Your task to perform on an android device: Clear all items from cart on target. Search for "lenovo thinkpad" on target, select the first entry, add it to the cart, then select checkout. Image 0: 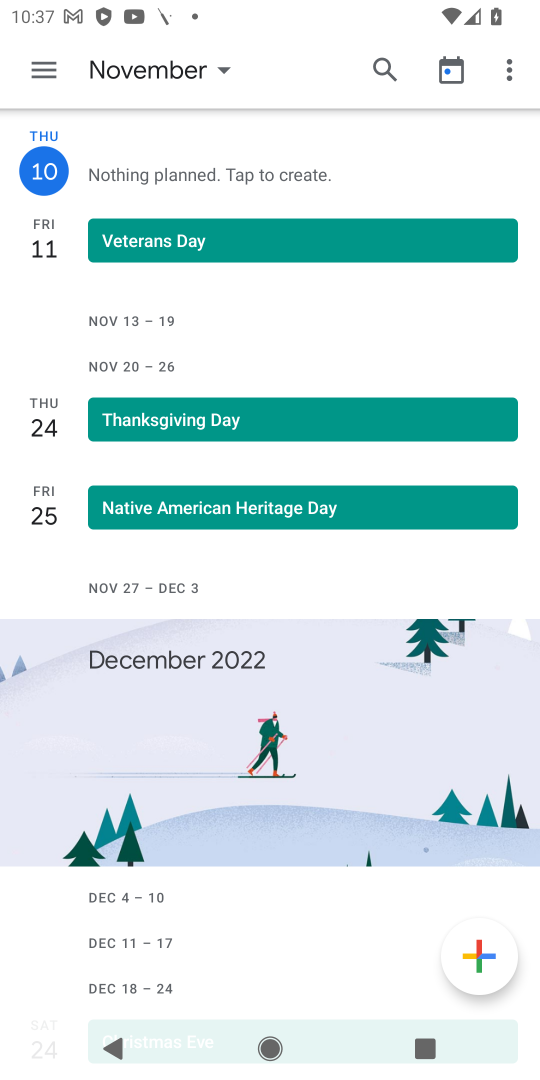
Step 0: press home button
Your task to perform on an android device: Clear all items from cart on target. Search for "lenovo thinkpad" on target, select the first entry, add it to the cart, then select checkout. Image 1: 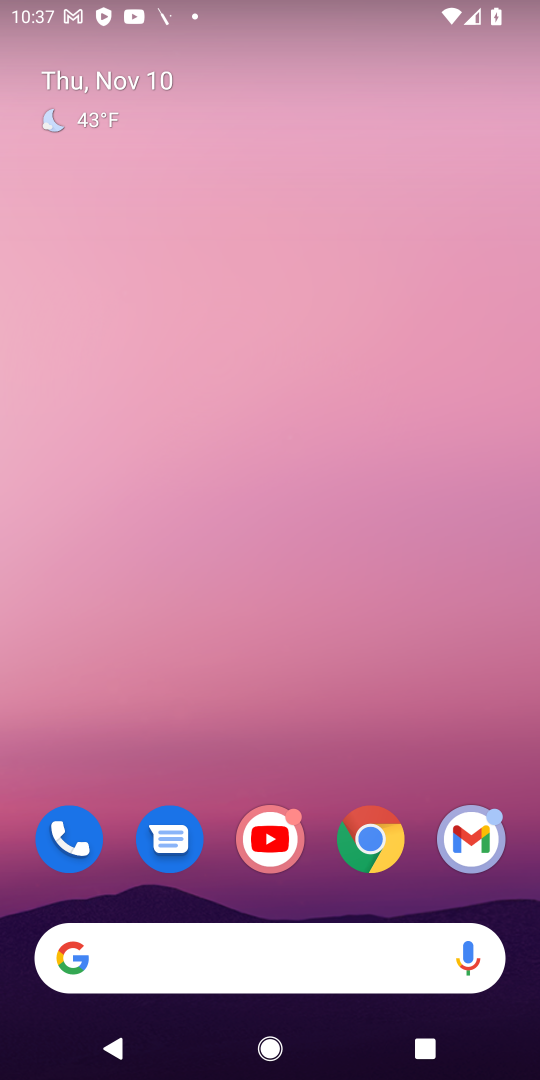
Step 1: click (381, 839)
Your task to perform on an android device: Clear all items from cart on target. Search for "lenovo thinkpad" on target, select the first entry, add it to the cart, then select checkout. Image 2: 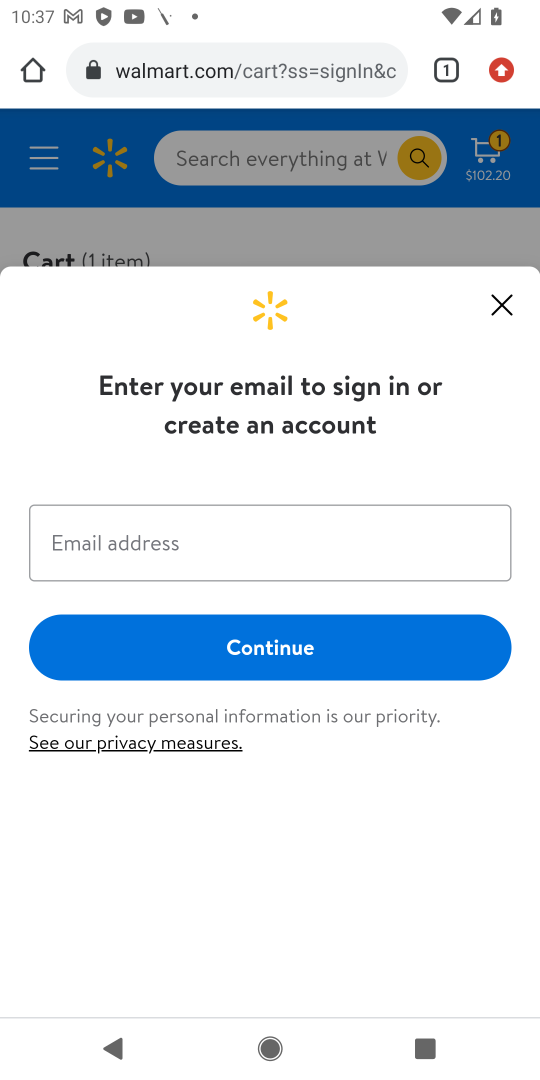
Step 2: click (344, 67)
Your task to perform on an android device: Clear all items from cart on target. Search for "lenovo thinkpad" on target, select the first entry, add it to the cart, then select checkout. Image 3: 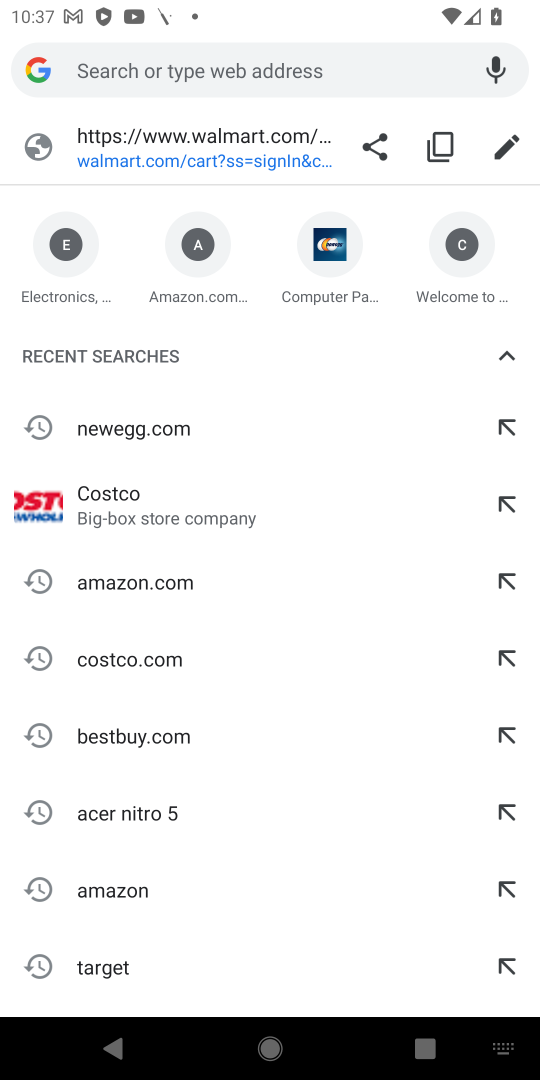
Step 3: click (121, 961)
Your task to perform on an android device: Clear all items from cart on target. Search for "lenovo thinkpad" on target, select the first entry, add it to the cart, then select checkout. Image 4: 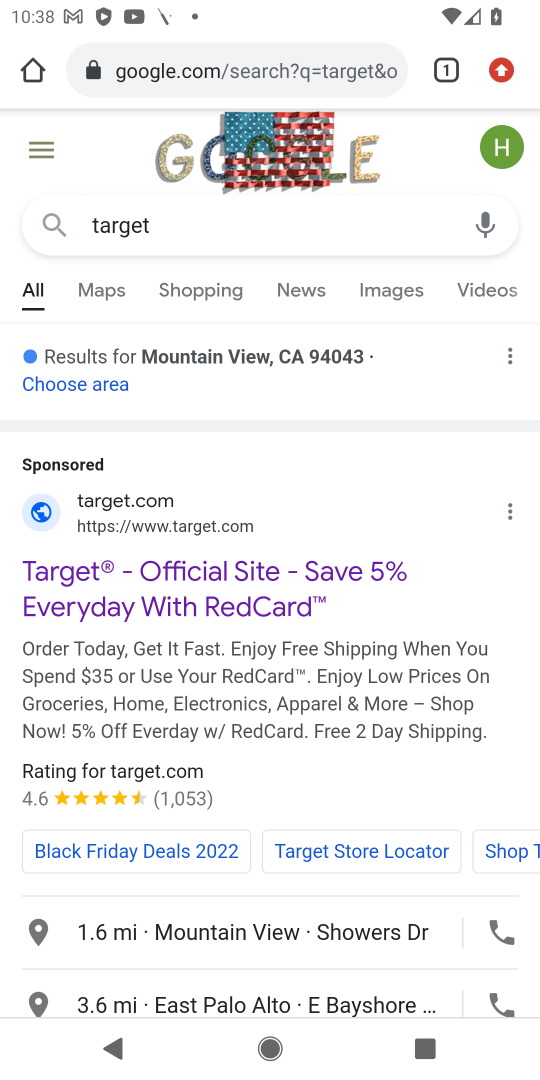
Step 4: drag from (283, 721) to (336, 398)
Your task to perform on an android device: Clear all items from cart on target. Search for "lenovo thinkpad" on target, select the first entry, add it to the cart, then select checkout. Image 5: 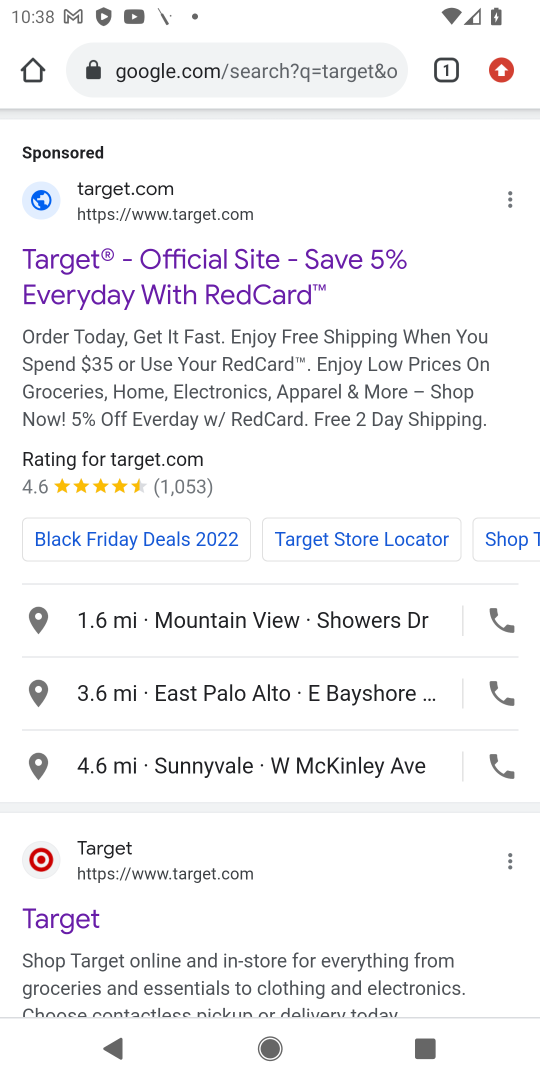
Step 5: click (206, 865)
Your task to perform on an android device: Clear all items from cart on target. Search for "lenovo thinkpad" on target, select the first entry, add it to the cart, then select checkout. Image 6: 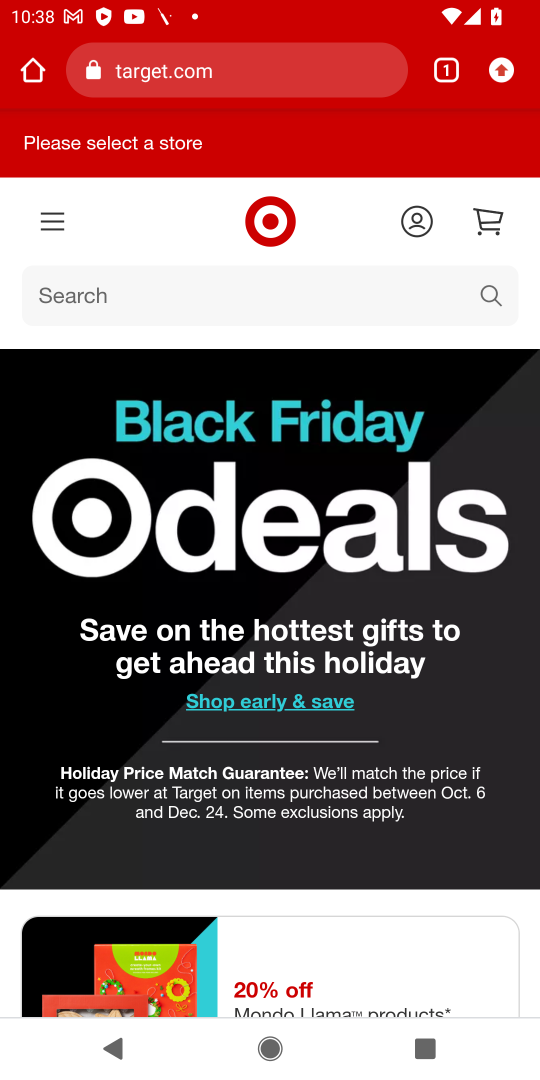
Step 6: click (495, 223)
Your task to perform on an android device: Clear all items from cart on target. Search for "lenovo thinkpad" on target, select the first entry, add it to the cart, then select checkout. Image 7: 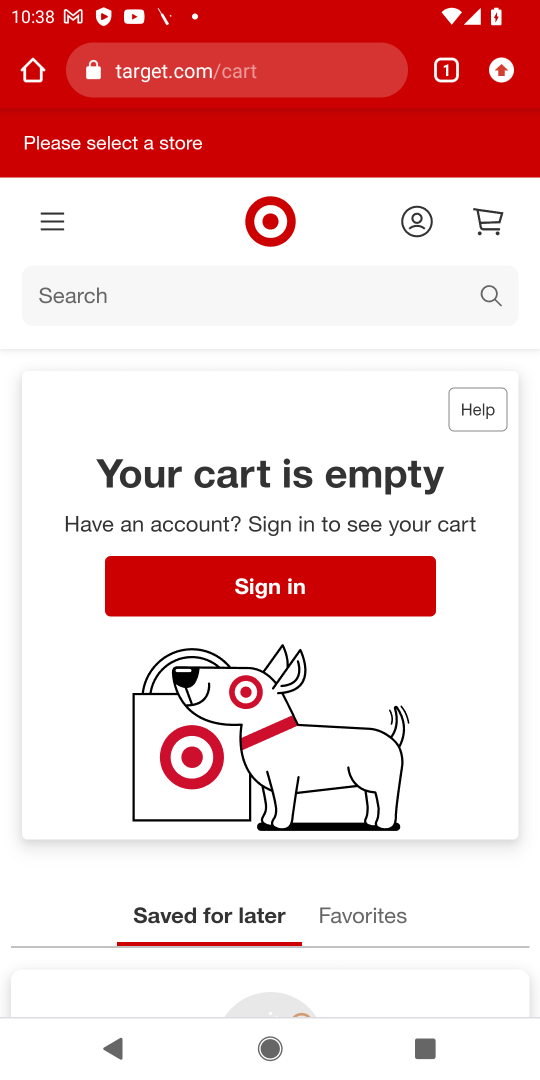
Step 7: click (468, 283)
Your task to perform on an android device: Clear all items from cart on target. Search for "lenovo thinkpad" on target, select the first entry, add it to the cart, then select checkout. Image 8: 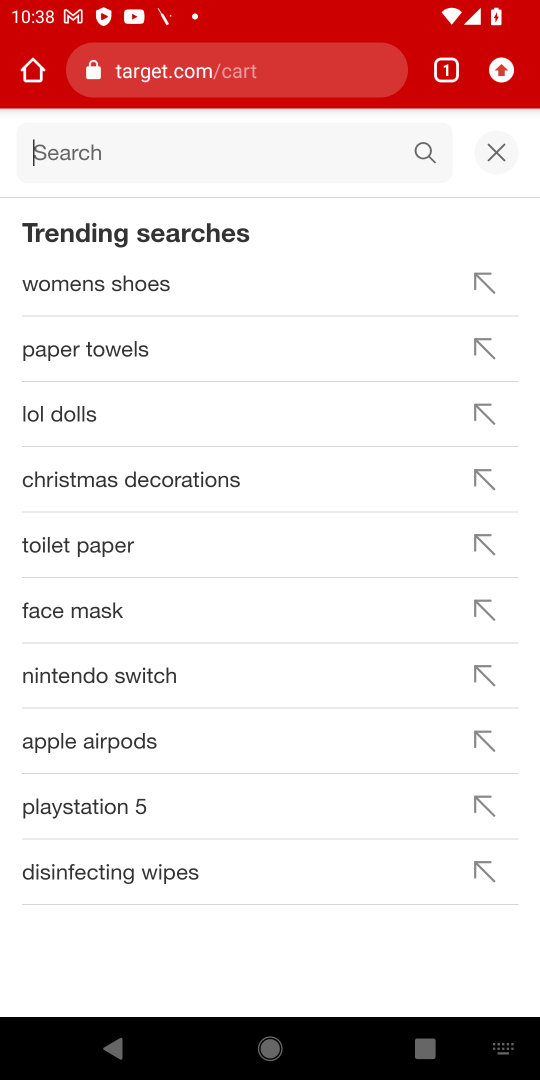
Step 8: type "lenovo thinkpad"
Your task to perform on an android device: Clear all items from cart on target. Search for "lenovo thinkpad" on target, select the first entry, add it to the cart, then select checkout. Image 9: 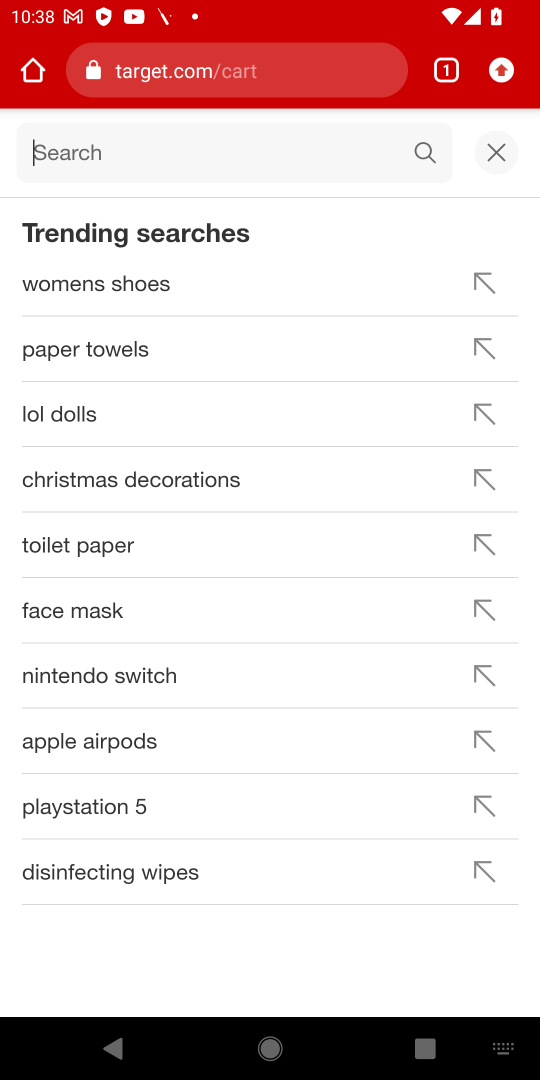
Step 9: press enter
Your task to perform on an android device: Clear all items from cart on target. Search for "lenovo thinkpad" on target, select the first entry, add it to the cart, then select checkout. Image 10: 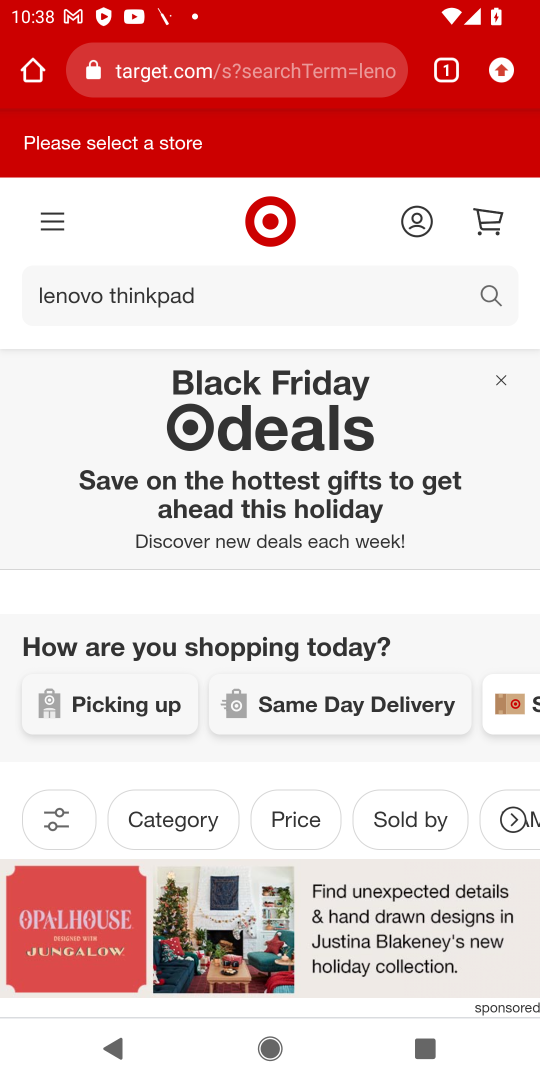
Step 10: drag from (436, 903) to (440, 452)
Your task to perform on an android device: Clear all items from cart on target. Search for "lenovo thinkpad" on target, select the first entry, add it to the cart, then select checkout. Image 11: 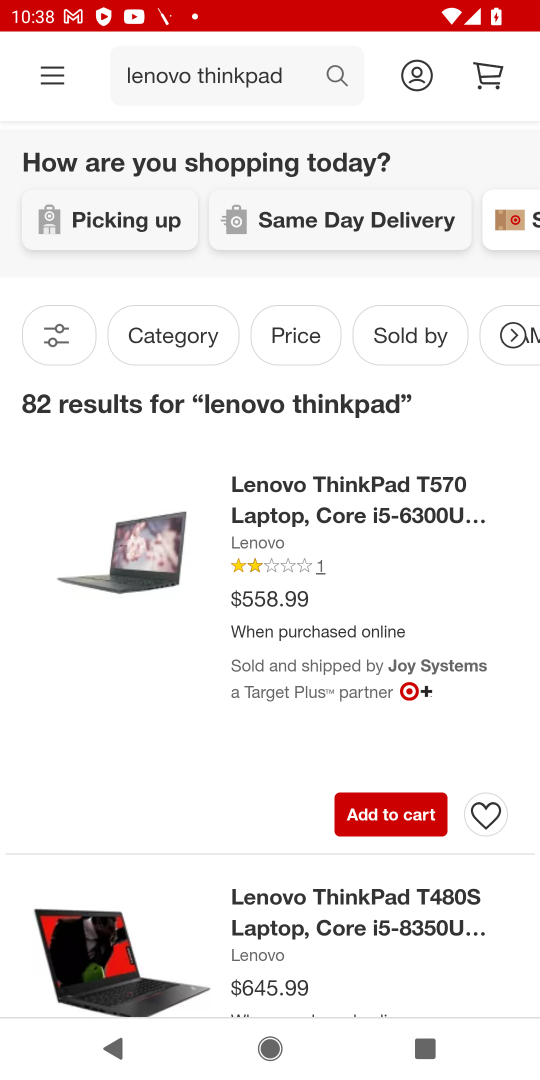
Step 11: drag from (361, 938) to (384, 890)
Your task to perform on an android device: Clear all items from cart on target. Search for "lenovo thinkpad" on target, select the first entry, add it to the cart, then select checkout. Image 12: 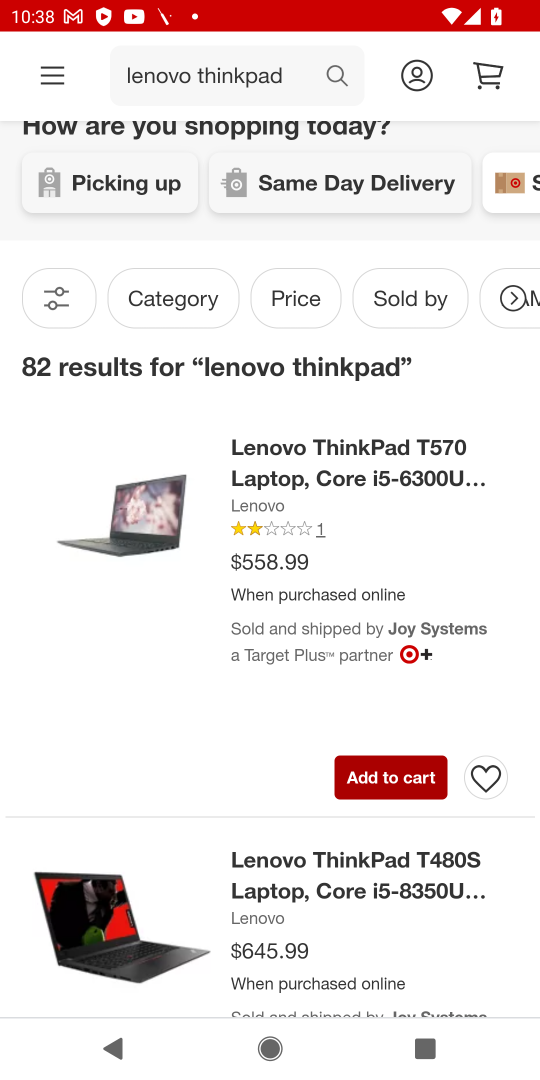
Step 12: click (129, 532)
Your task to perform on an android device: Clear all items from cart on target. Search for "lenovo thinkpad" on target, select the first entry, add it to the cart, then select checkout. Image 13: 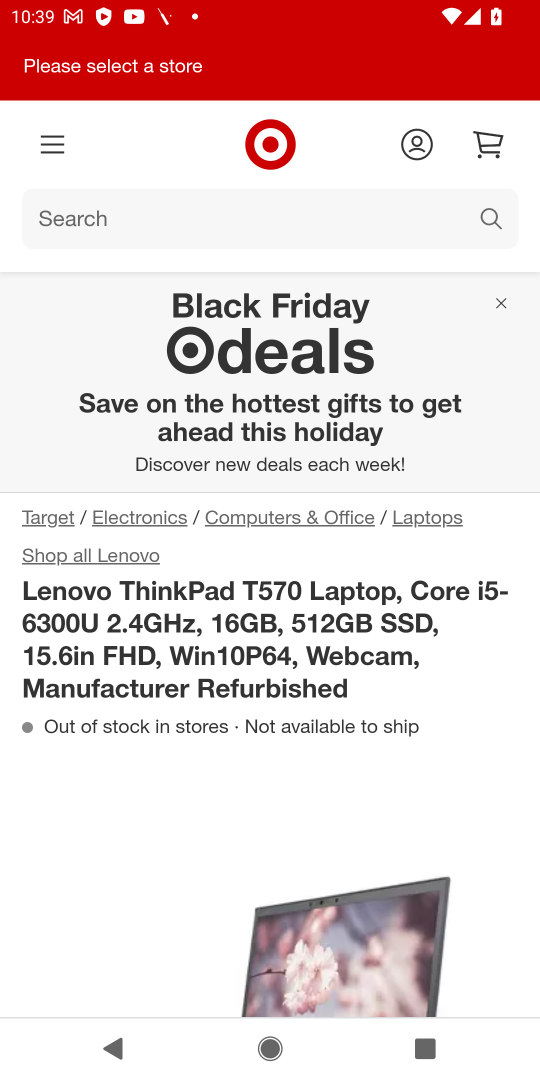
Step 13: drag from (350, 761) to (387, 355)
Your task to perform on an android device: Clear all items from cart on target. Search for "lenovo thinkpad" on target, select the first entry, add it to the cart, then select checkout. Image 14: 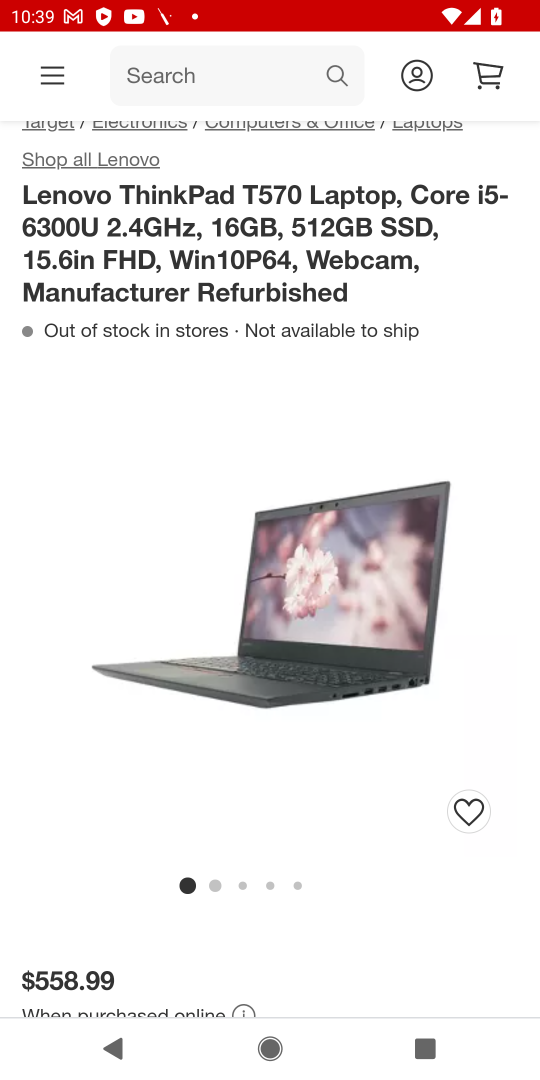
Step 14: drag from (390, 496) to (409, 365)
Your task to perform on an android device: Clear all items from cart on target. Search for "lenovo thinkpad" on target, select the first entry, add it to the cart, then select checkout. Image 15: 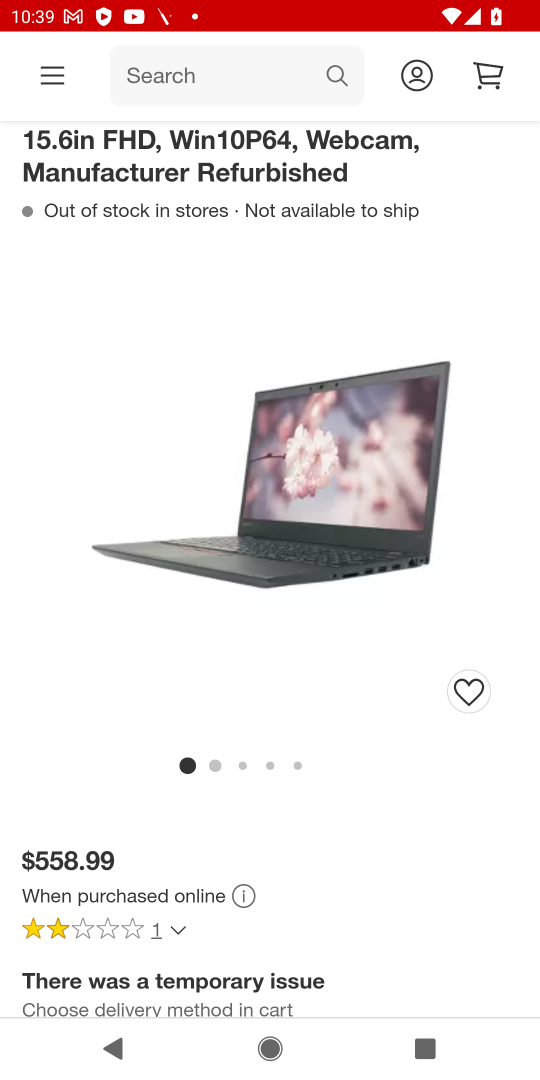
Step 15: drag from (415, 927) to (464, 375)
Your task to perform on an android device: Clear all items from cart on target. Search for "lenovo thinkpad" on target, select the first entry, add it to the cart, then select checkout. Image 16: 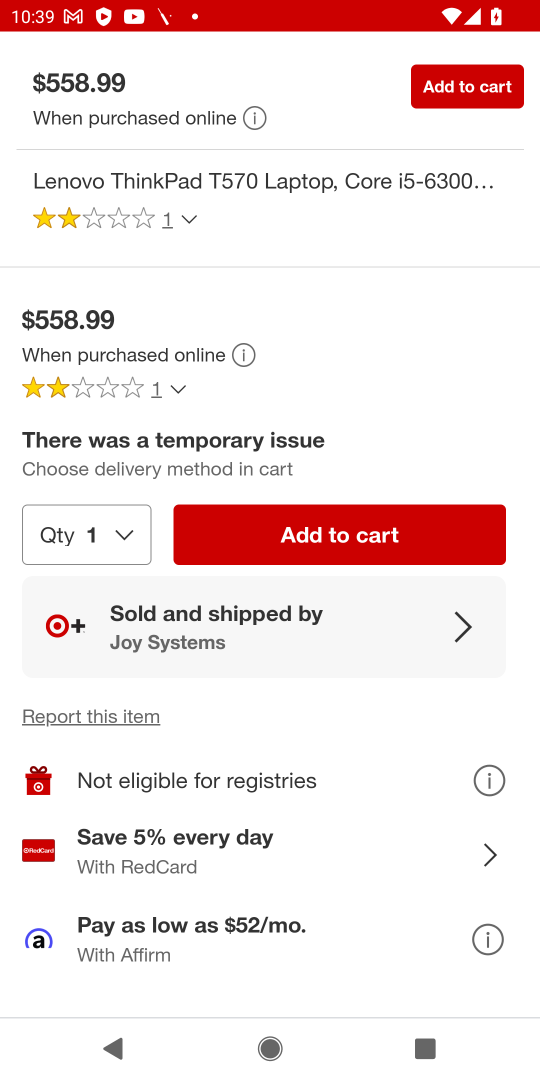
Step 16: click (355, 539)
Your task to perform on an android device: Clear all items from cart on target. Search for "lenovo thinkpad" on target, select the first entry, add it to the cart, then select checkout. Image 17: 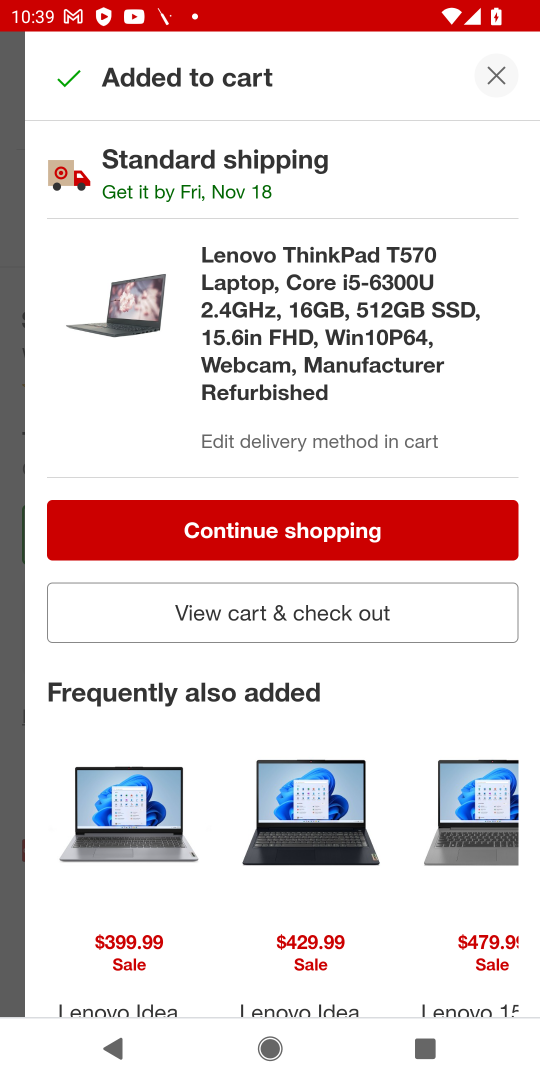
Step 17: click (490, 75)
Your task to perform on an android device: Clear all items from cart on target. Search for "lenovo thinkpad" on target, select the first entry, add it to the cart, then select checkout. Image 18: 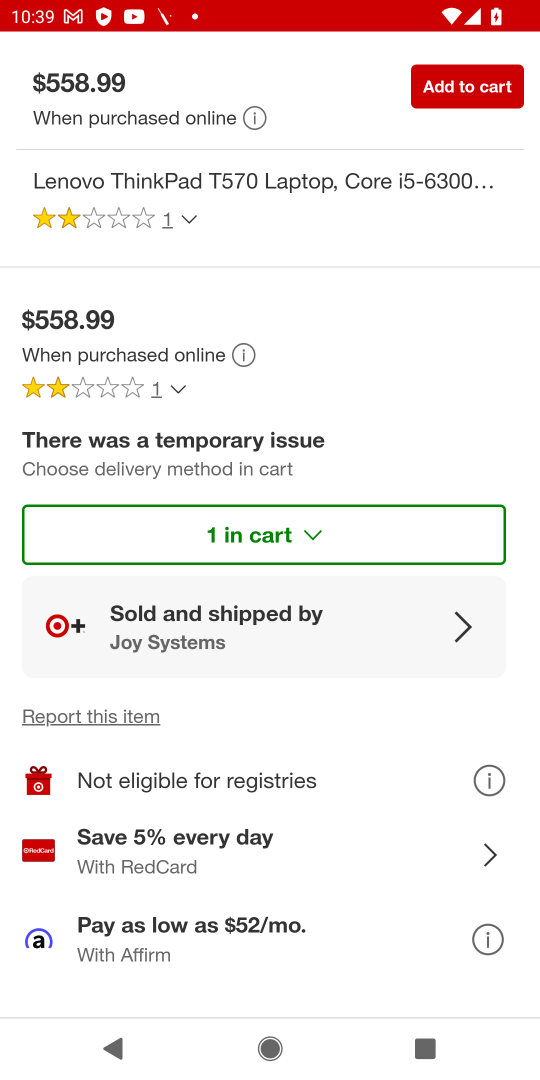
Step 18: drag from (427, 596) to (478, 714)
Your task to perform on an android device: Clear all items from cart on target. Search for "lenovo thinkpad" on target, select the first entry, add it to the cart, then select checkout. Image 19: 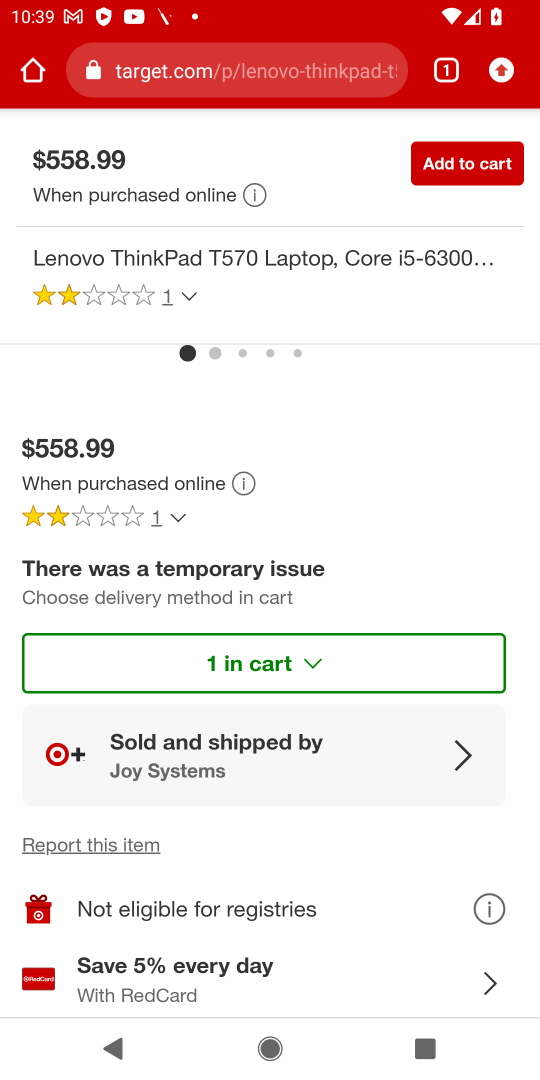
Step 19: press back button
Your task to perform on an android device: Clear all items from cart on target. Search for "lenovo thinkpad" on target, select the first entry, add it to the cart, then select checkout. Image 20: 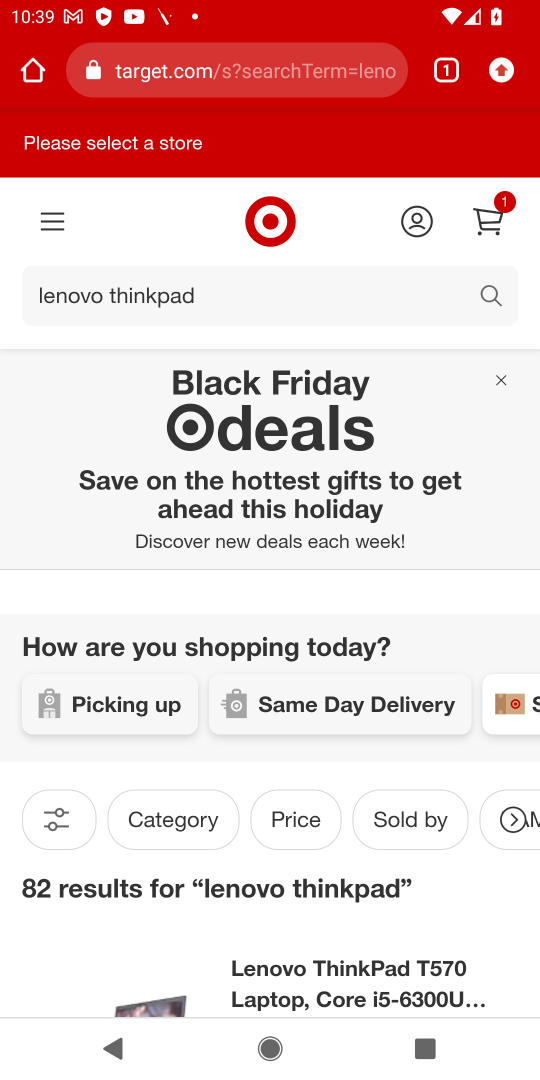
Step 20: click (498, 227)
Your task to perform on an android device: Clear all items from cart on target. Search for "lenovo thinkpad" on target, select the first entry, add it to the cart, then select checkout. Image 21: 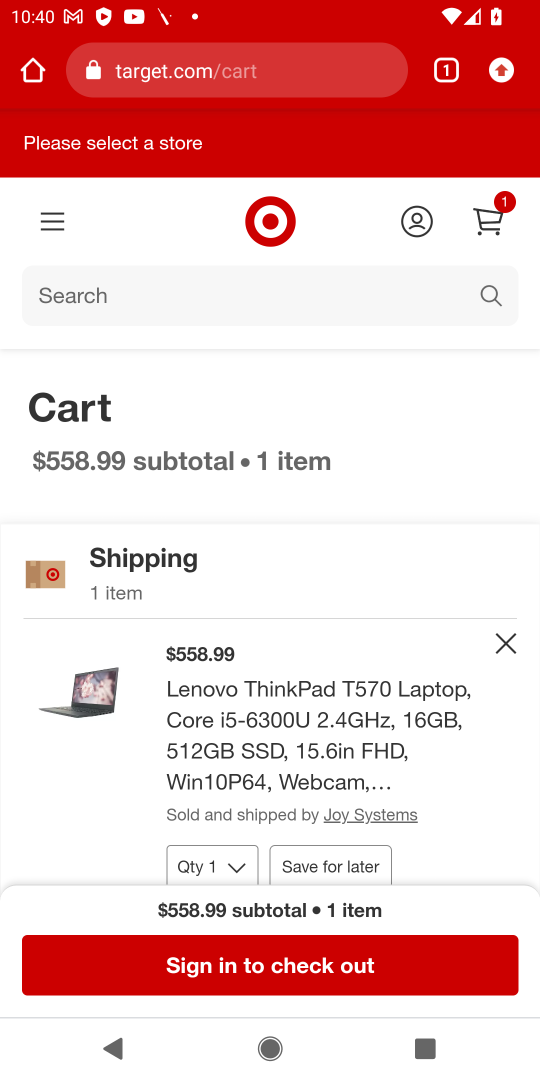
Step 21: drag from (365, 675) to (439, 387)
Your task to perform on an android device: Clear all items from cart on target. Search for "lenovo thinkpad" on target, select the first entry, add it to the cart, then select checkout. Image 22: 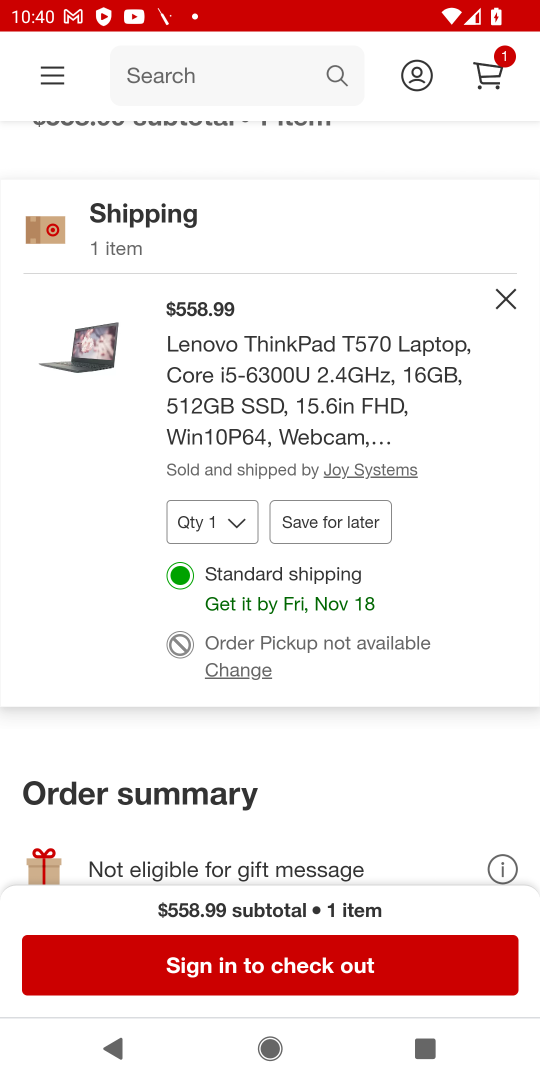
Step 22: drag from (392, 768) to (434, 486)
Your task to perform on an android device: Clear all items from cart on target. Search for "lenovo thinkpad" on target, select the first entry, add it to the cart, then select checkout. Image 23: 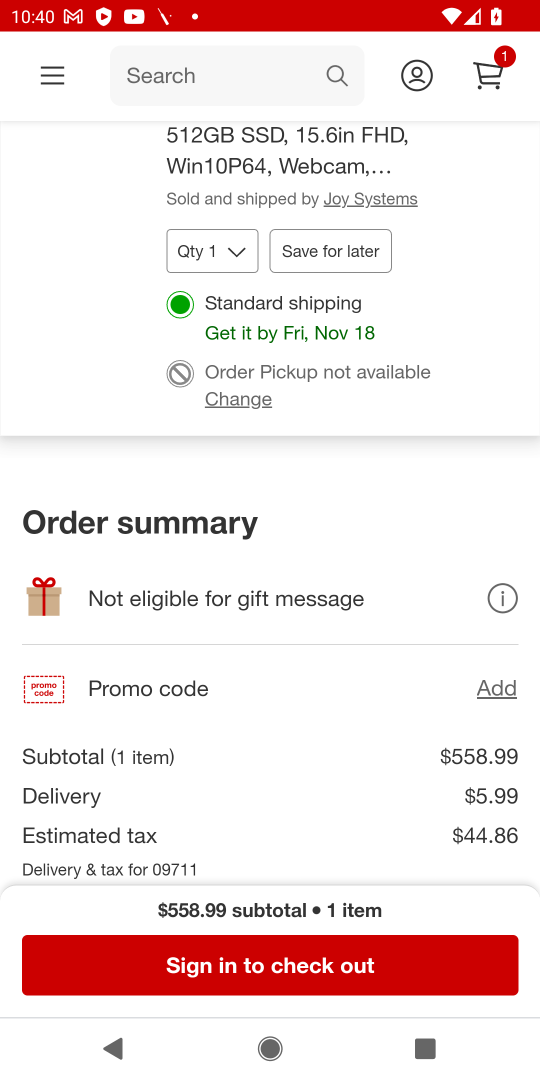
Step 23: click (310, 960)
Your task to perform on an android device: Clear all items from cart on target. Search for "lenovo thinkpad" on target, select the first entry, add it to the cart, then select checkout. Image 24: 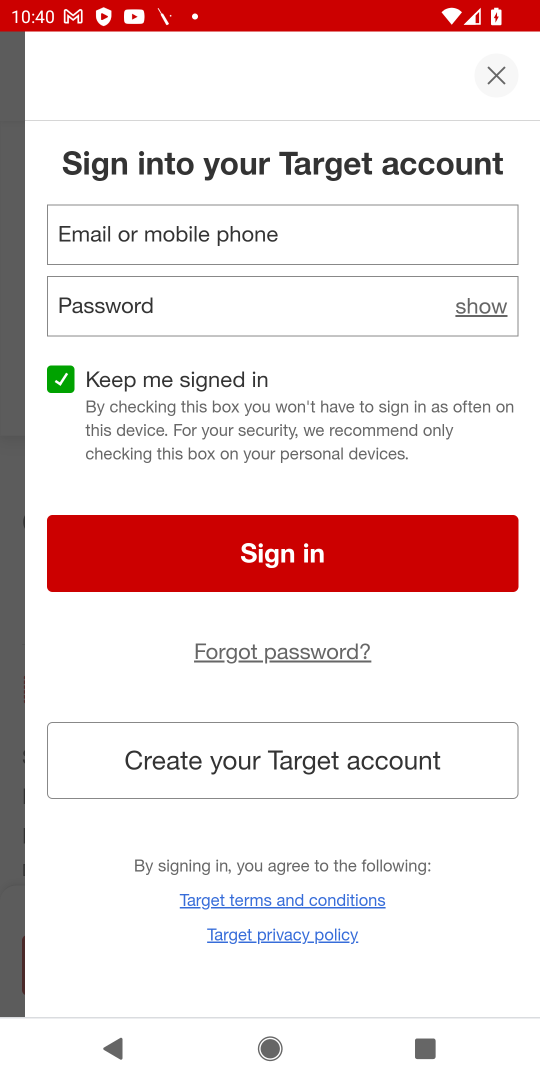
Step 24: task complete